Your task to perform on an android device: Open CNN.com Image 0: 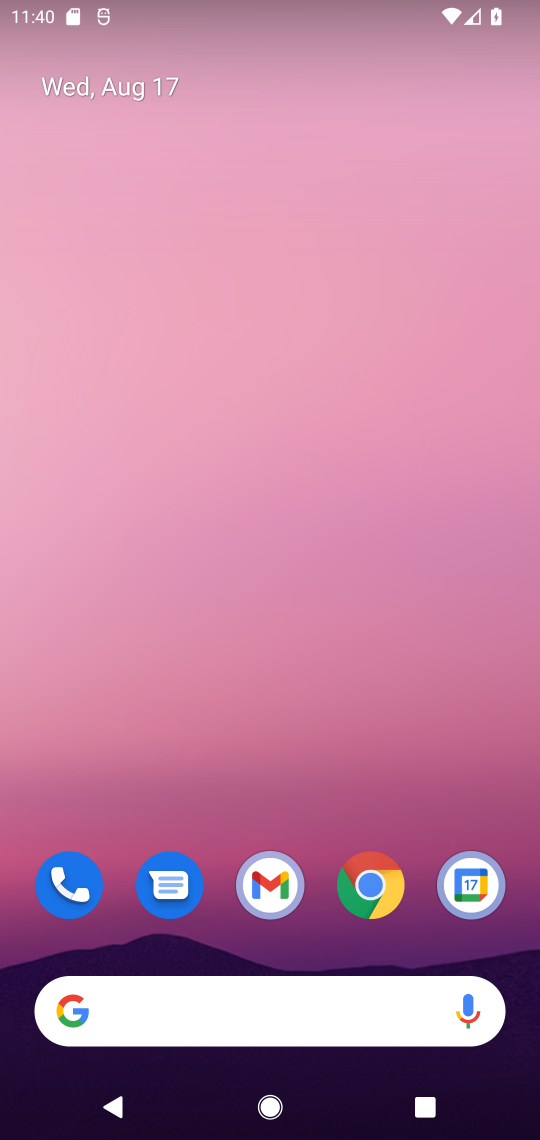
Step 0: click (392, 890)
Your task to perform on an android device: Open CNN.com Image 1: 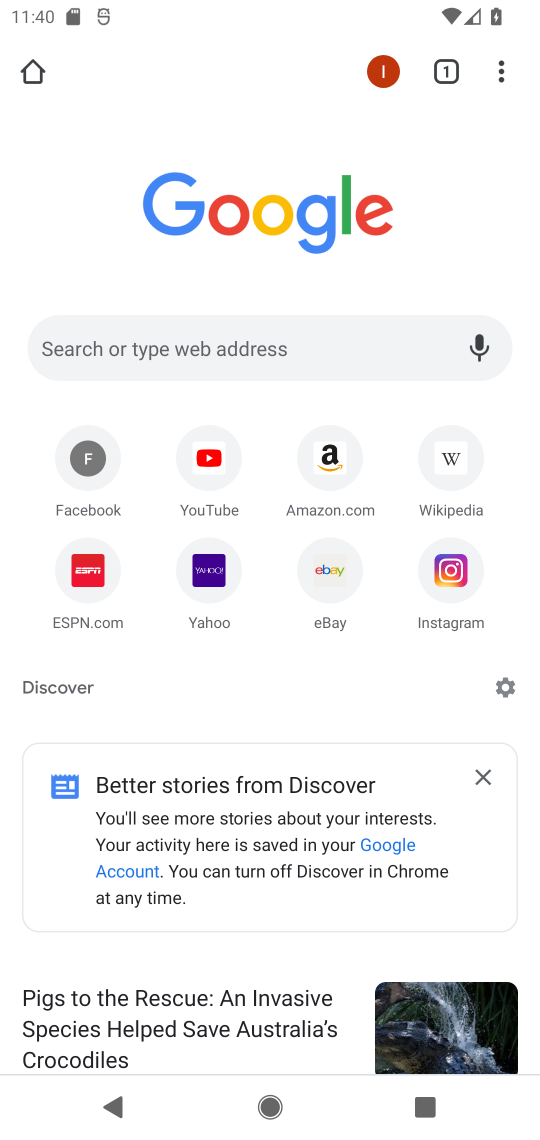
Step 1: click (203, 339)
Your task to perform on an android device: Open CNN.com Image 2: 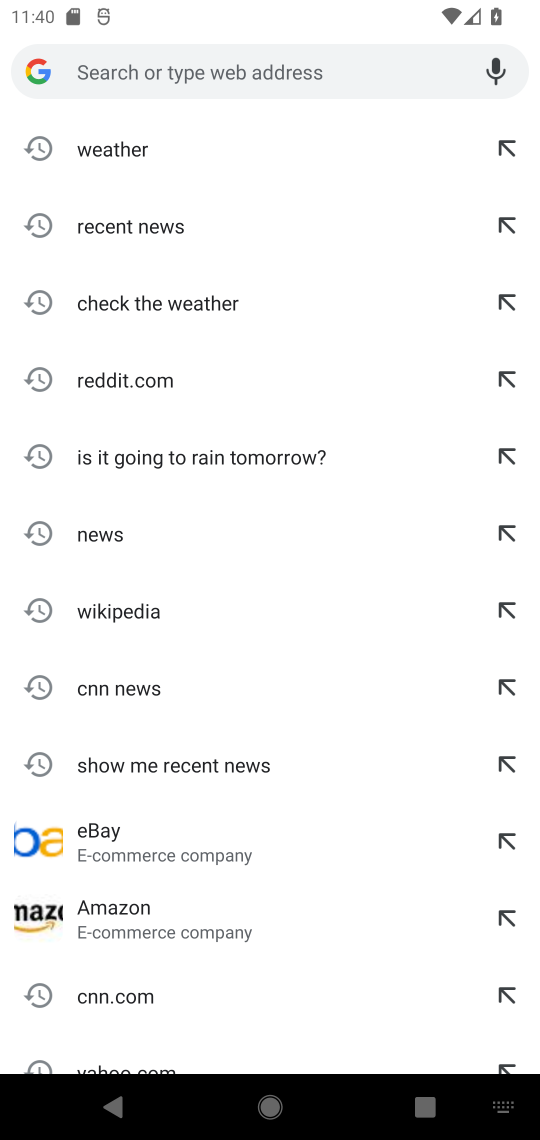
Step 2: type "cnn.com"
Your task to perform on an android device: Open CNN.com Image 3: 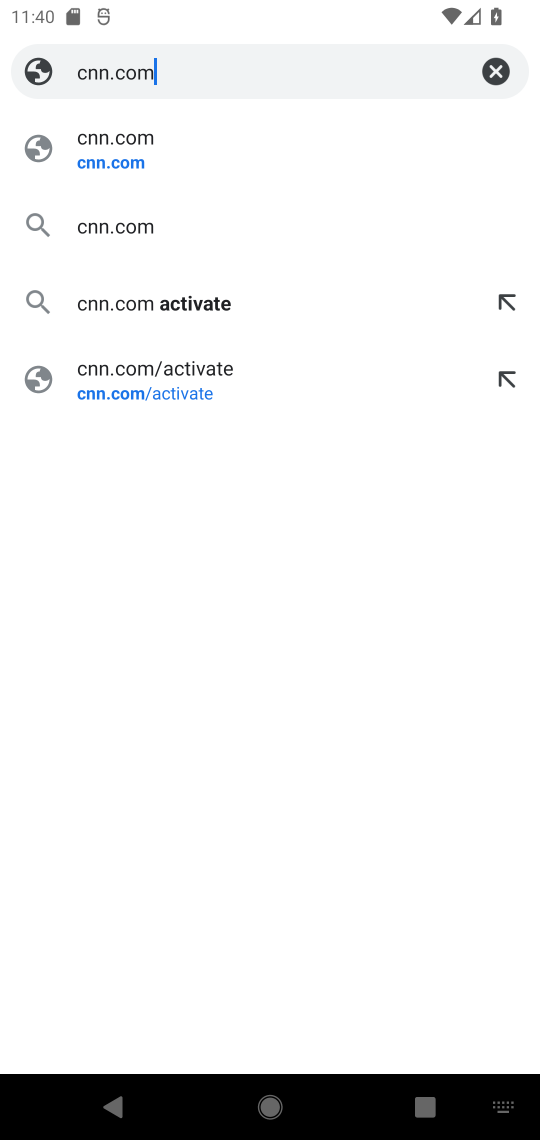
Step 3: click (185, 136)
Your task to perform on an android device: Open CNN.com Image 4: 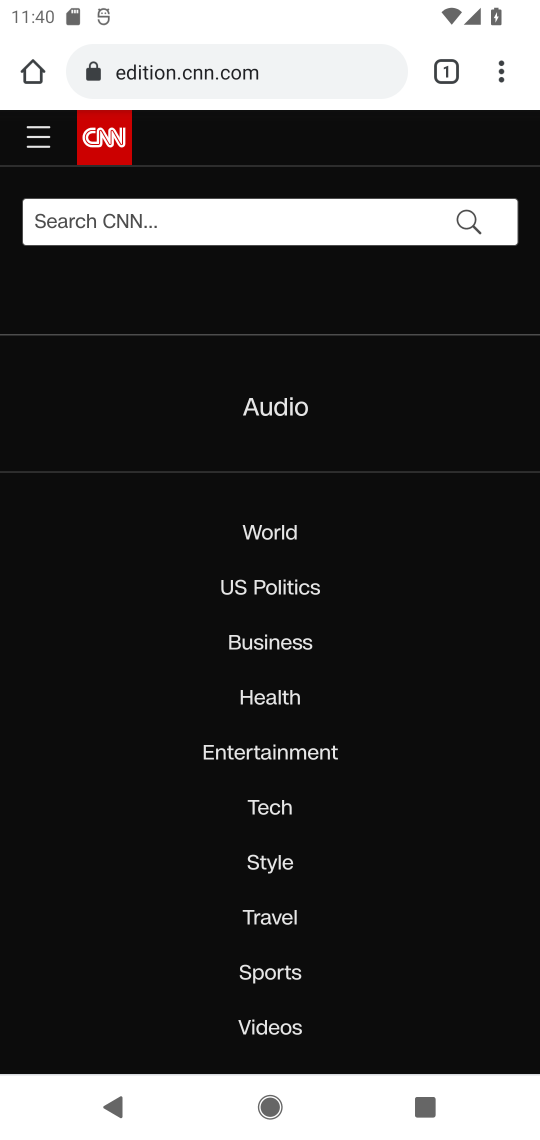
Step 4: task complete